Your task to perform on an android device: delete a single message in the gmail app Image 0: 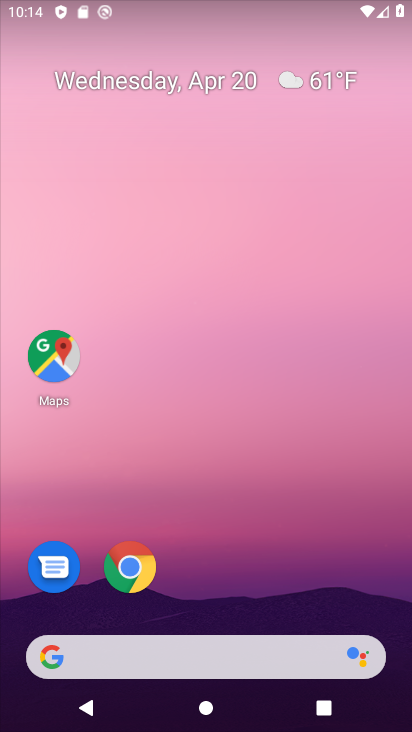
Step 0: drag from (207, 497) to (273, 46)
Your task to perform on an android device: delete a single message in the gmail app Image 1: 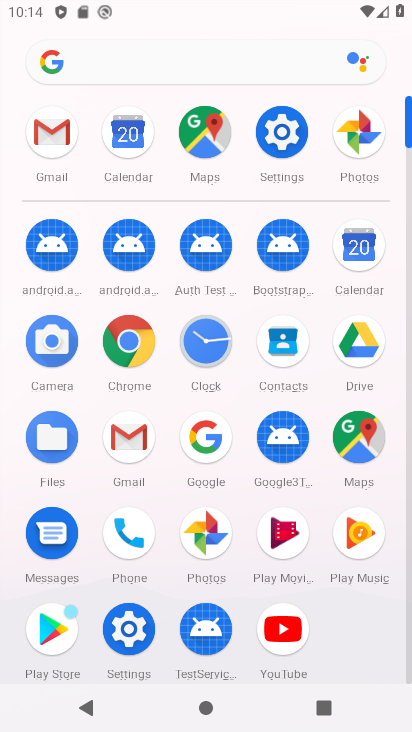
Step 1: click (132, 437)
Your task to perform on an android device: delete a single message in the gmail app Image 2: 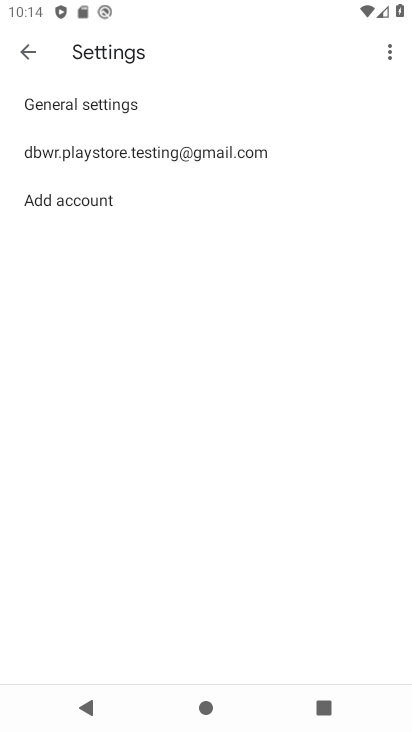
Step 2: click (27, 53)
Your task to perform on an android device: delete a single message in the gmail app Image 3: 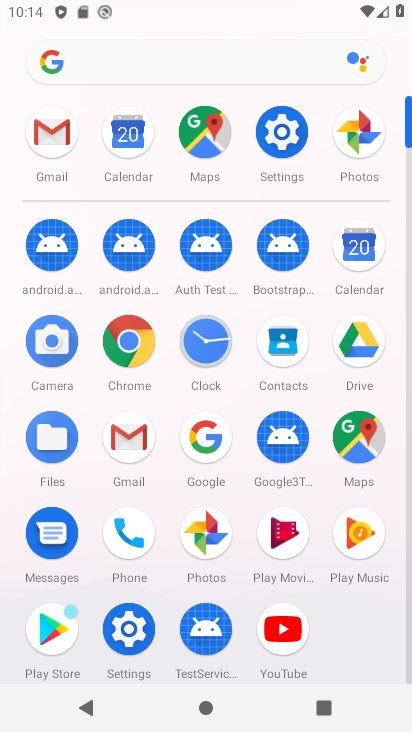
Step 3: click (53, 124)
Your task to perform on an android device: delete a single message in the gmail app Image 4: 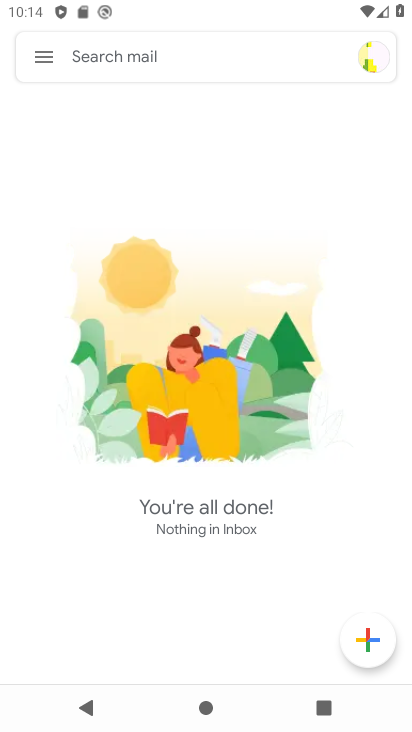
Step 4: click (42, 58)
Your task to perform on an android device: delete a single message in the gmail app Image 5: 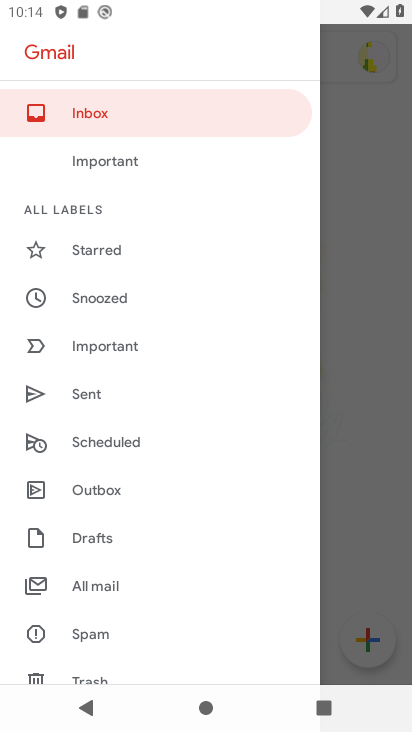
Step 5: click (108, 584)
Your task to perform on an android device: delete a single message in the gmail app Image 6: 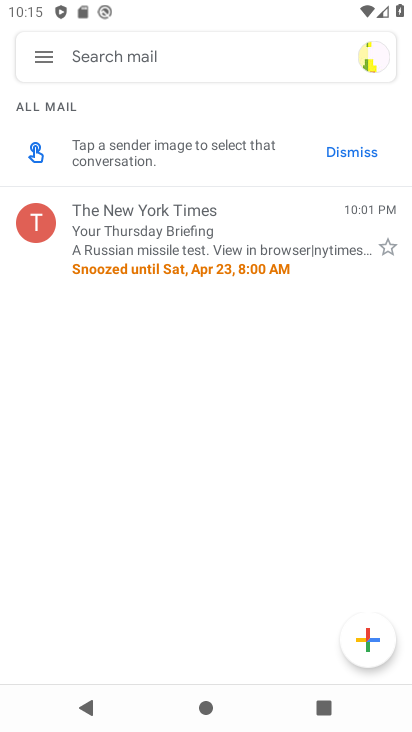
Step 6: click (171, 228)
Your task to perform on an android device: delete a single message in the gmail app Image 7: 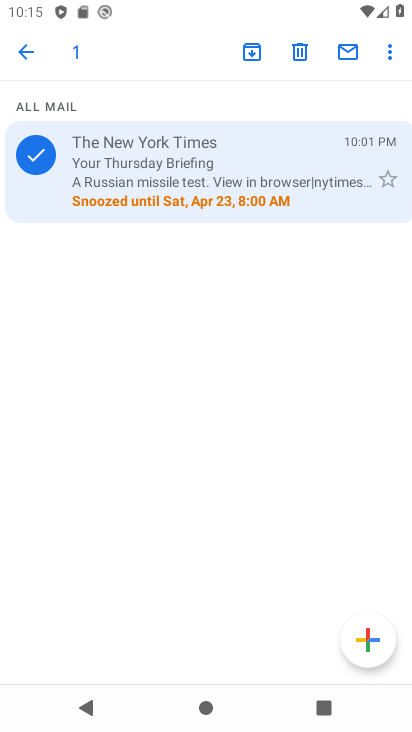
Step 7: click (294, 53)
Your task to perform on an android device: delete a single message in the gmail app Image 8: 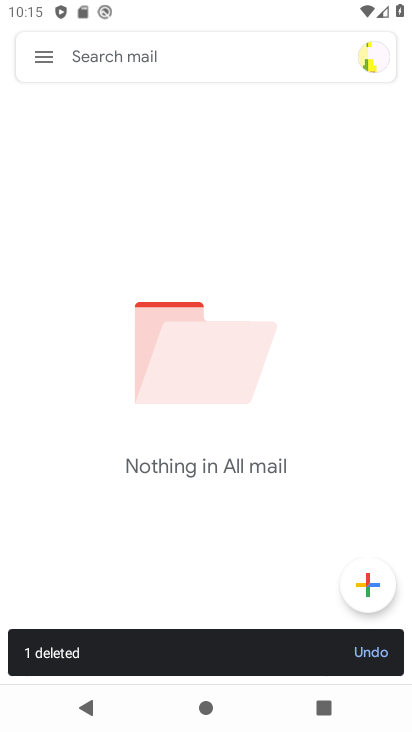
Step 8: task complete